Your task to perform on an android device: Open display settings Image 0: 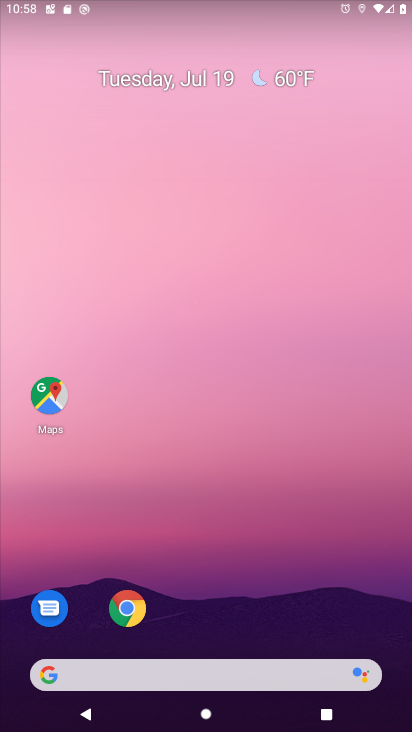
Step 0: drag from (223, 634) to (228, 83)
Your task to perform on an android device: Open display settings Image 1: 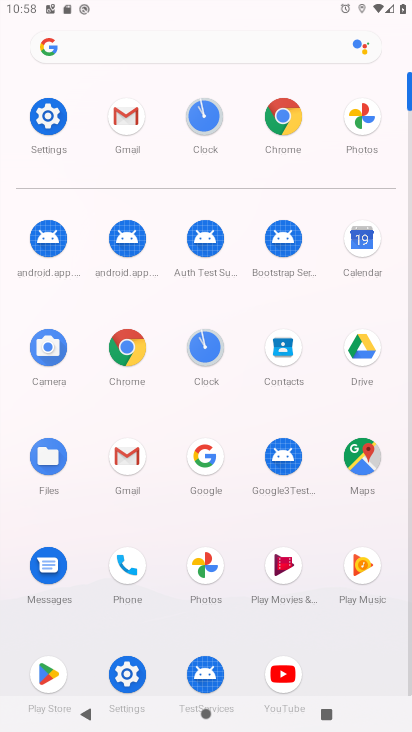
Step 1: click (51, 122)
Your task to perform on an android device: Open display settings Image 2: 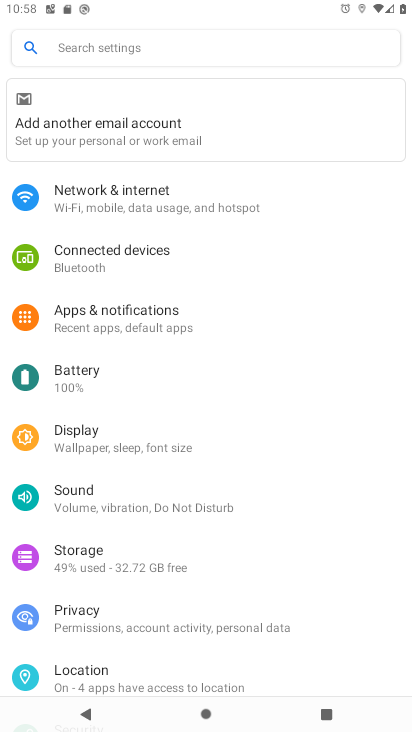
Step 2: click (64, 443)
Your task to perform on an android device: Open display settings Image 3: 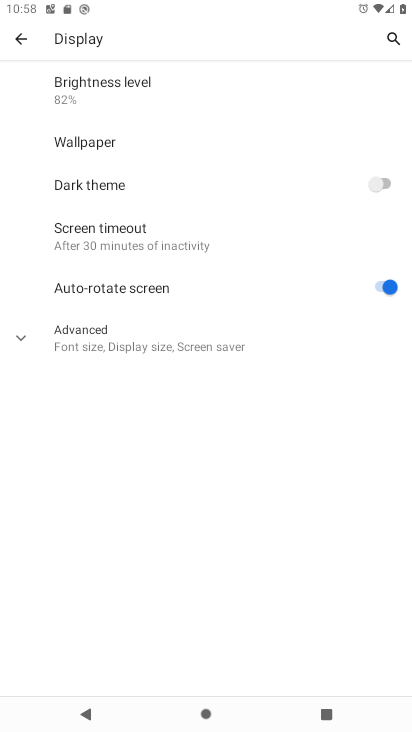
Step 3: task complete